Your task to perform on an android device: snooze an email in the gmail app Image 0: 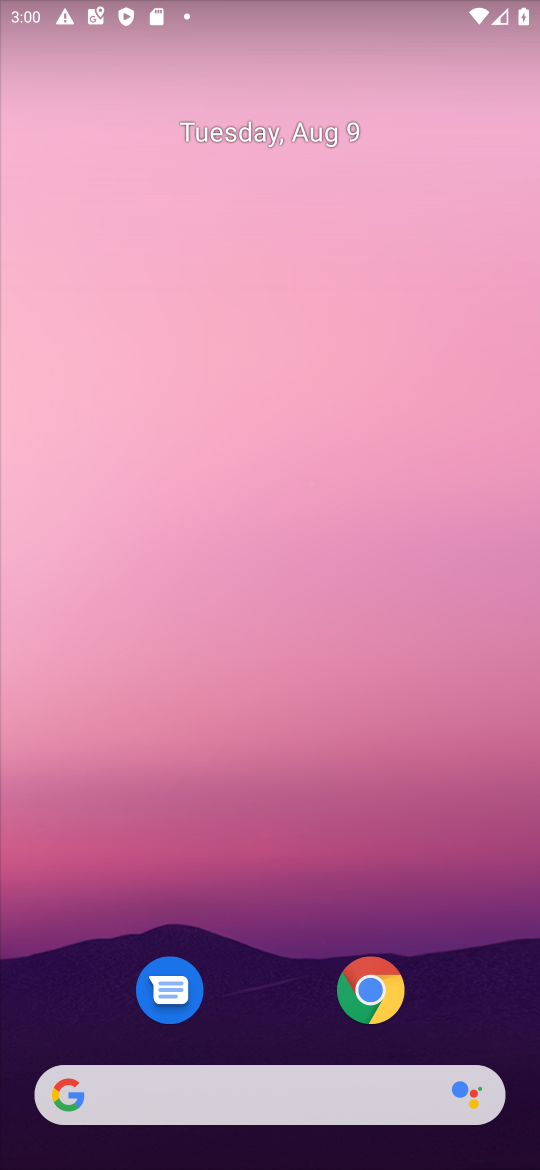
Step 0: drag from (327, 1103) to (331, 107)
Your task to perform on an android device: snooze an email in the gmail app Image 1: 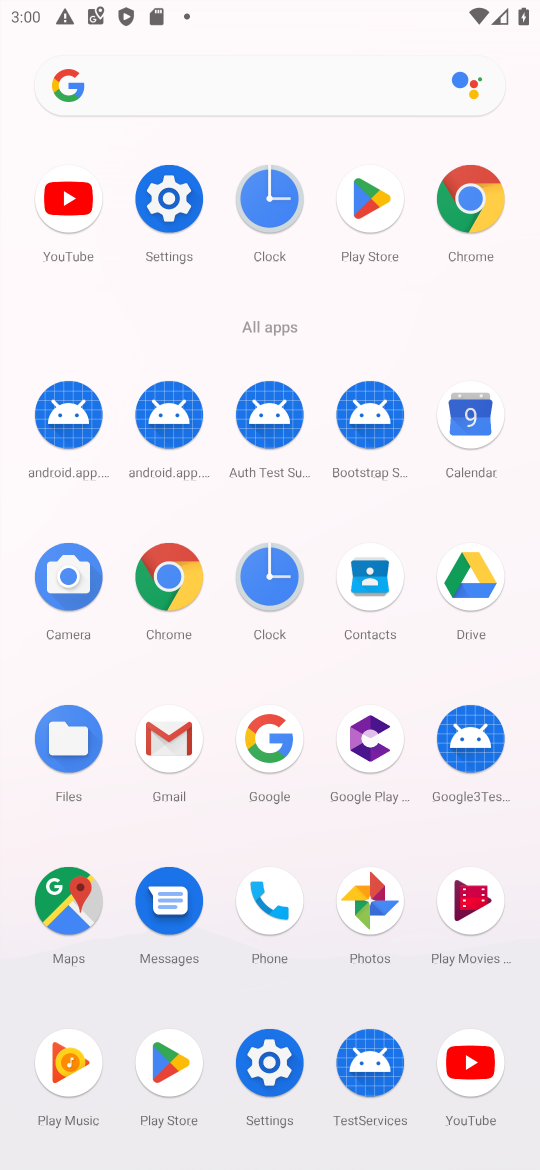
Step 1: click (188, 754)
Your task to perform on an android device: snooze an email in the gmail app Image 2: 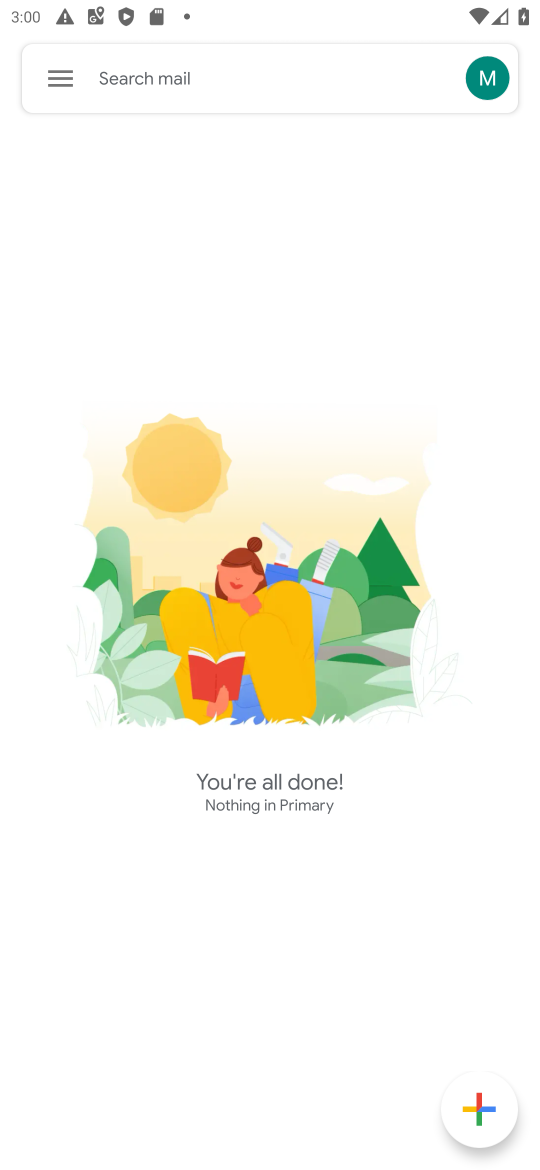
Step 2: click (47, 58)
Your task to perform on an android device: snooze an email in the gmail app Image 3: 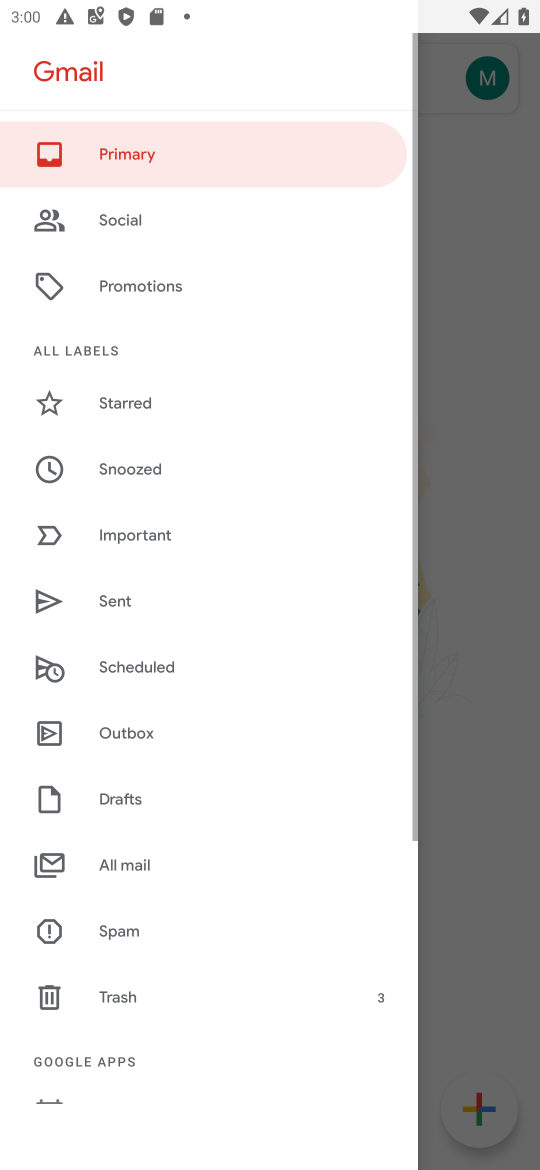
Step 3: click (138, 462)
Your task to perform on an android device: snooze an email in the gmail app Image 4: 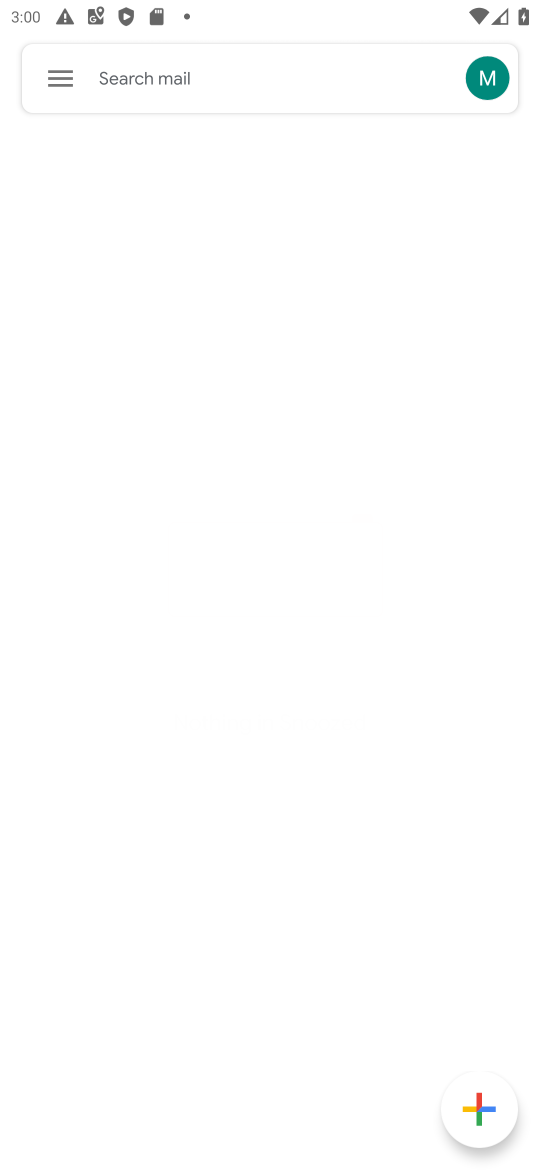
Step 4: task complete